Your task to perform on an android device: Open Yahoo.com Image 0: 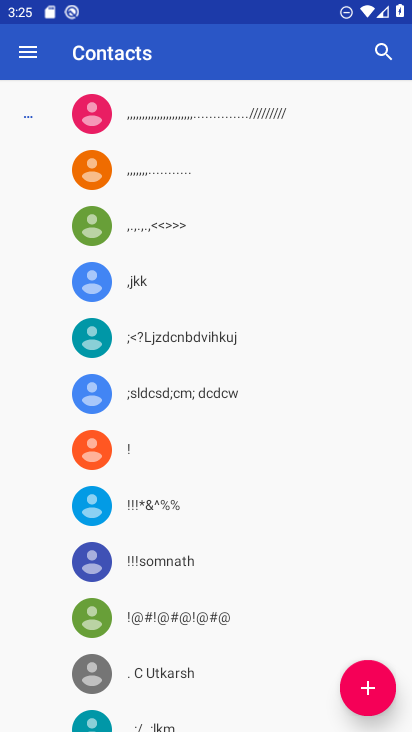
Step 0: press home button
Your task to perform on an android device: Open Yahoo.com Image 1: 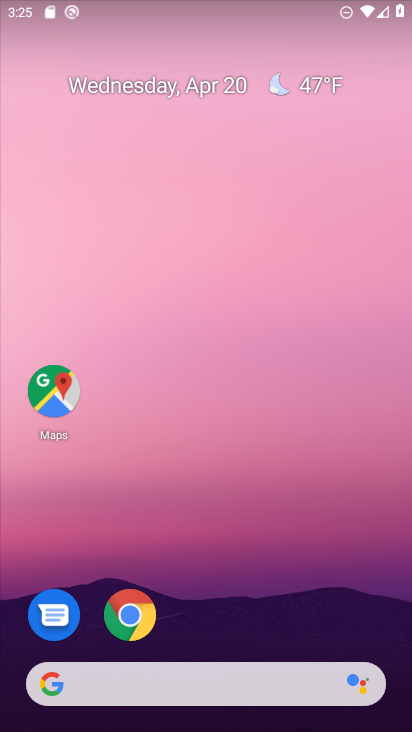
Step 1: click (138, 605)
Your task to perform on an android device: Open Yahoo.com Image 2: 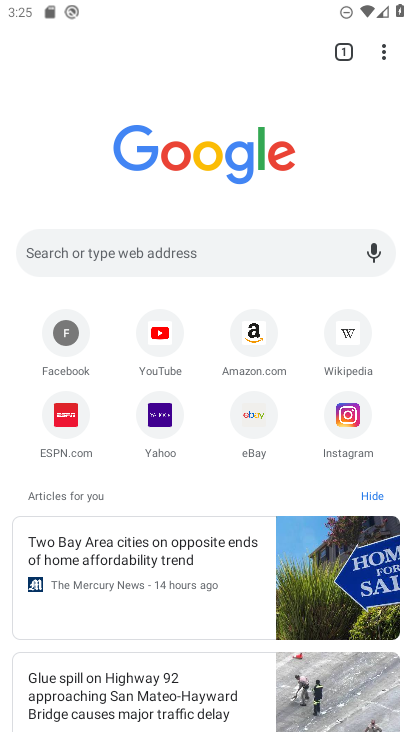
Step 2: click (158, 425)
Your task to perform on an android device: Open Yahoo.com Image 3: 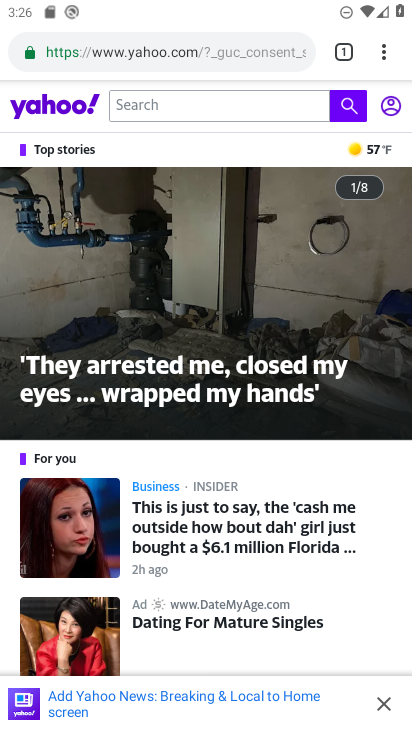
Step 3: task complete